Your task to perform on an android device: move a message to another label in the gmail app Image 0: 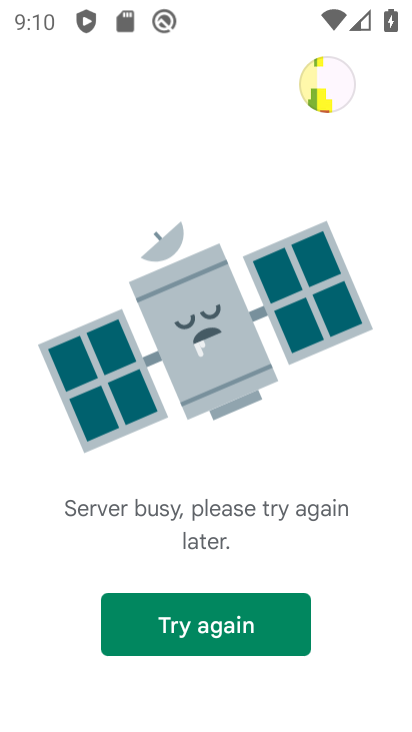
Step 0: press home button
Your task to perform on an android device: move a message to another label in the gmail app Image 1: 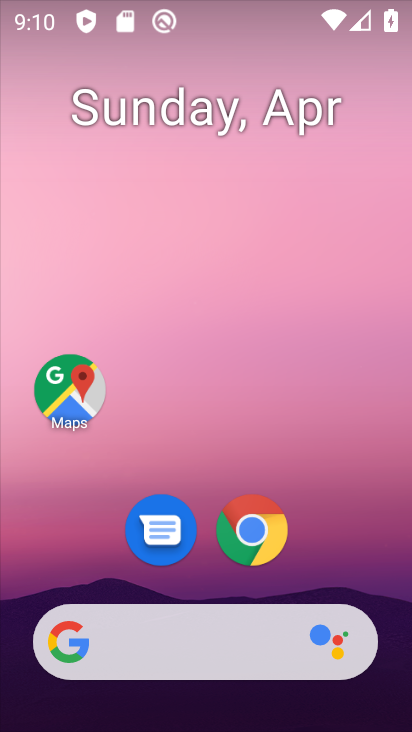
Step 1: drag from (381, 599) to (405, 441)
Your task to perform on an android device: move a message to another label in the gmail app Image 2: 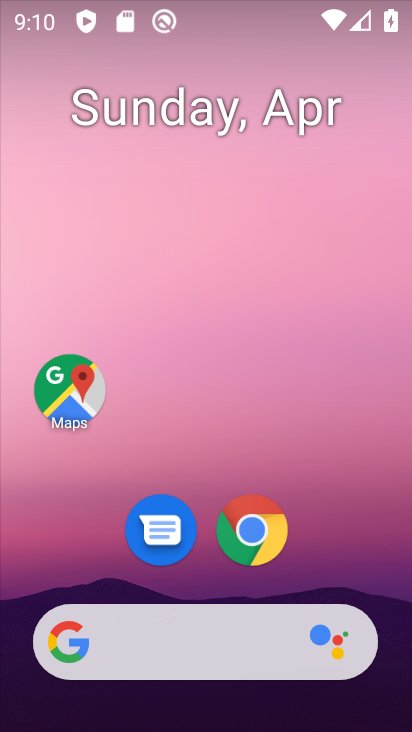
Step 2: drag from (387, 579) to (357, 10)
Your task to perform on an android device: move a message to another label in the gmail app Image 3: 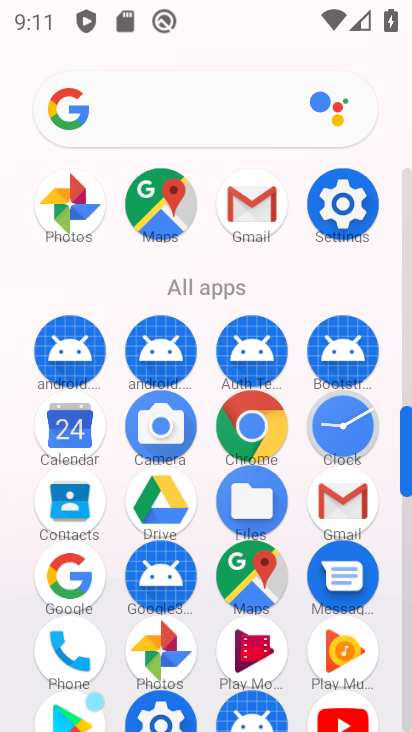
Step 3: click (247, 208)
Your task to perform on an android device: move a message to another label in the gmail app Image 4: 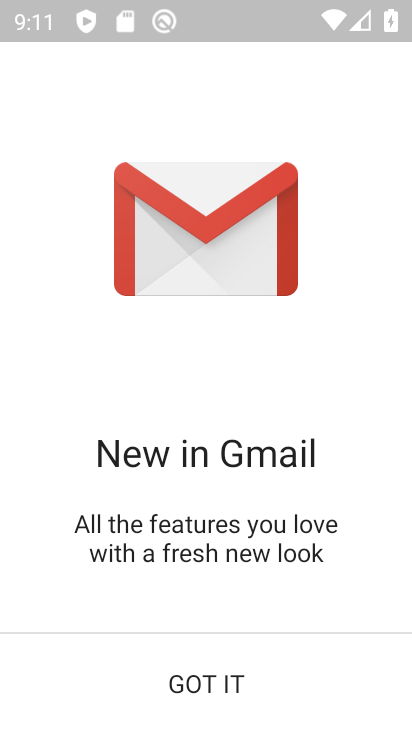
Step 4: click (211, 678)
Your task to perform on an android device: move a message to another label in the gmail app Image 5: 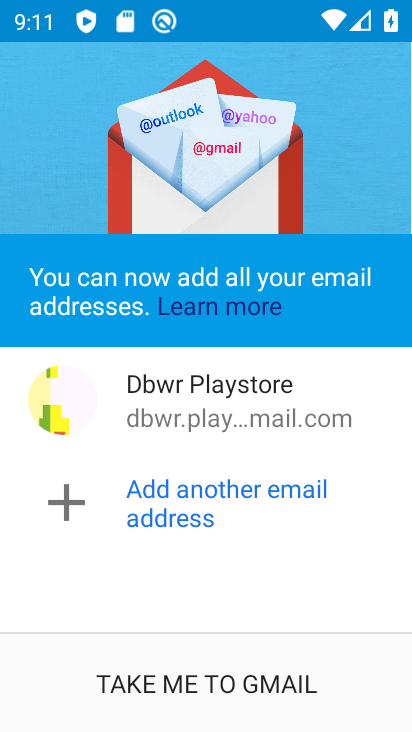
Step 5: click (211, 678)
Your task to perform on an android device: move a message to another label in the gmail app Image 6: 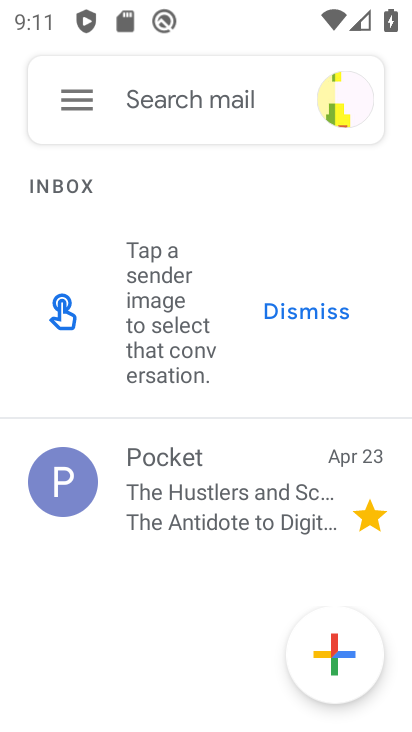
Step 6: click (82, 97)
Your task to perform on an android device: move a message to another label in the gmail app Image 7: 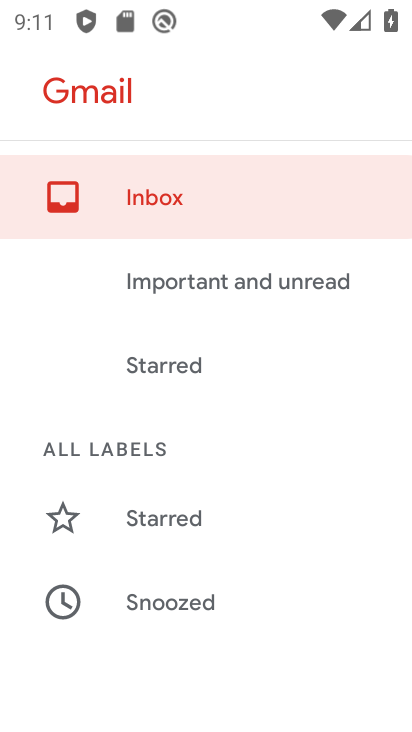
Step 7: click (197, 290)
Your task to perform on an android device: move a message to another label in the gmail app Image 8: 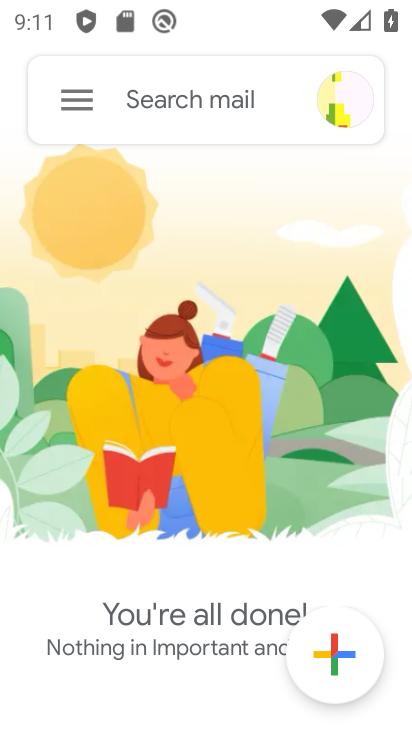
Step 8: click (69, 101)
Your task to perform on an android device: move a message to another label in the gmail app Image 9: 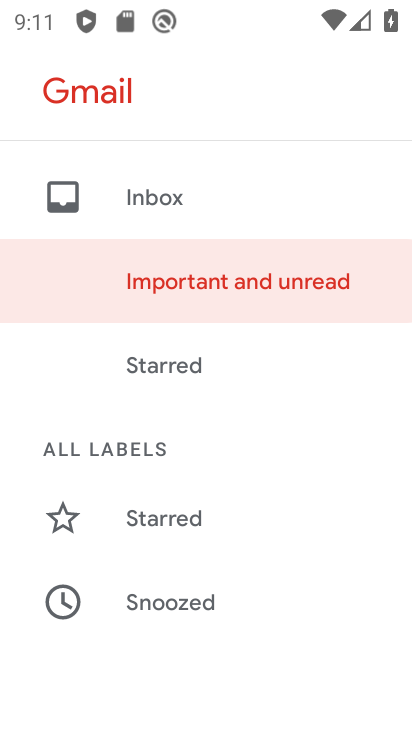
Step 9: drag from (144, 560) to (138, 87)
Your task to perform on an android device: move a message to another label in the gmail app Image 10: 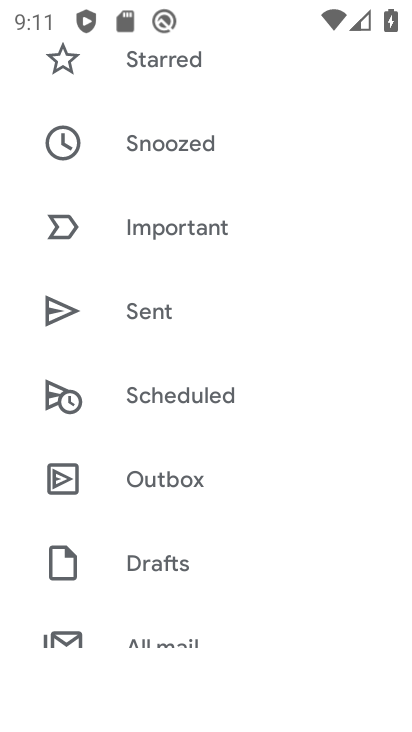
Step 10: drag from (152, 498) to (137, 123)
Your task to perform on an android device: move a message to another label in the gmail app Image 11: 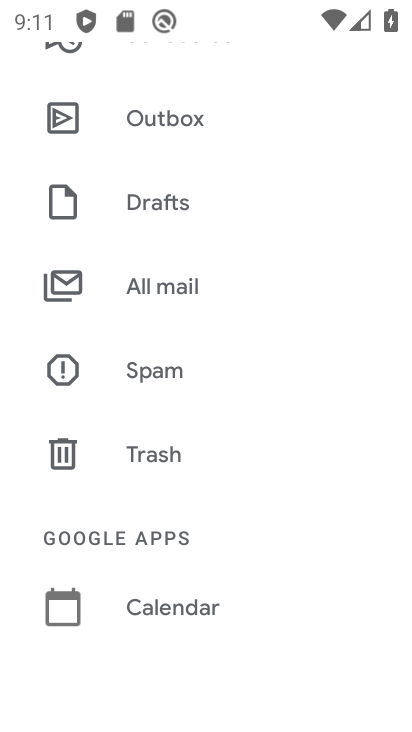
Step 11: click (182, 300)
Your task to perform on an android device: move a message to another label in the gmail app Image 12: 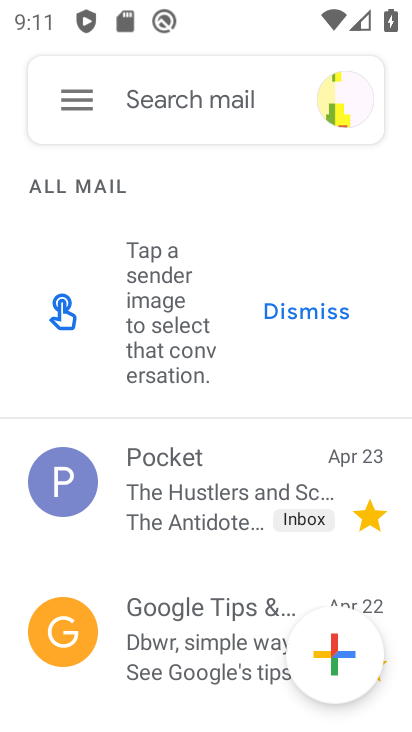
Step 12: drag from (214, 593) to (187, 321)
Your task to perform on an android device: move a message to another label in the gmail app Image 13: 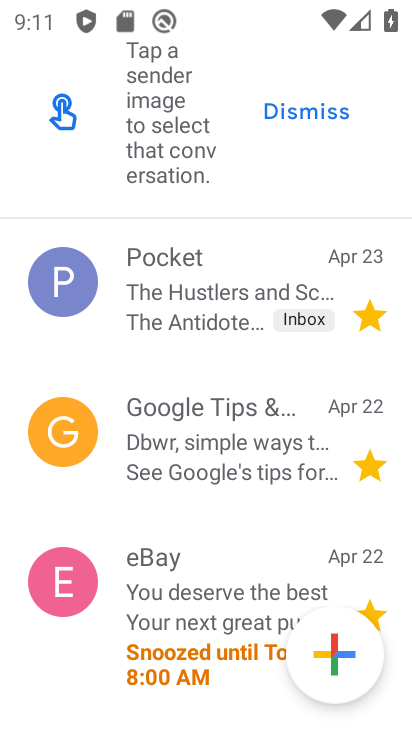
Step 13: click (213, 439)
Your task to perform on an android device: move a message to another label in the gmail app Image 14: 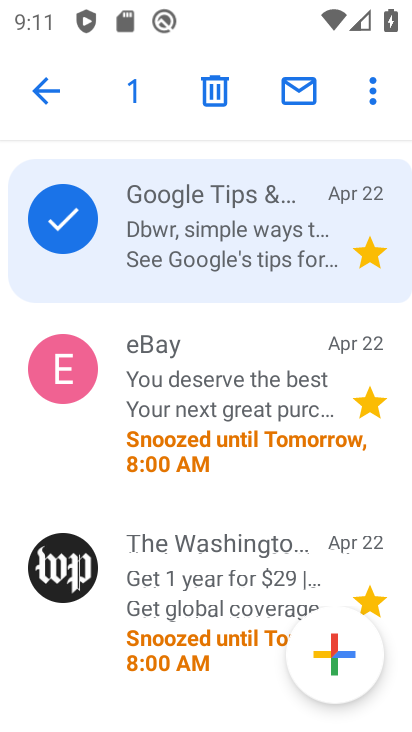
Step 14: click (163, 245)
Your task to perform on an android device: move a message to another label in the gmail app Image 15: 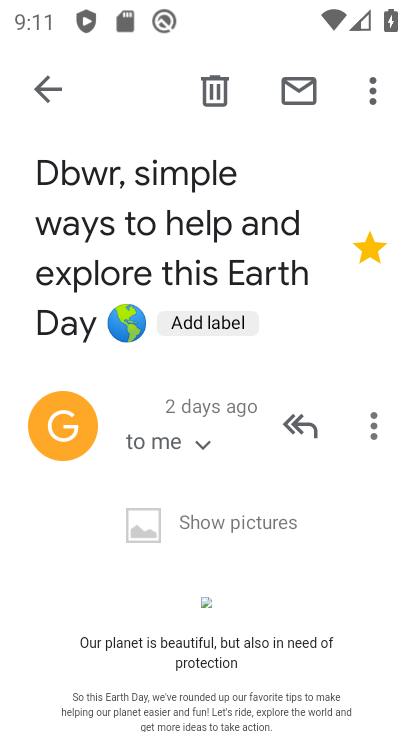
Step 15: click (376, 87)
Your task to perform on an android device: move a message to another label in the gmail app Image 16: 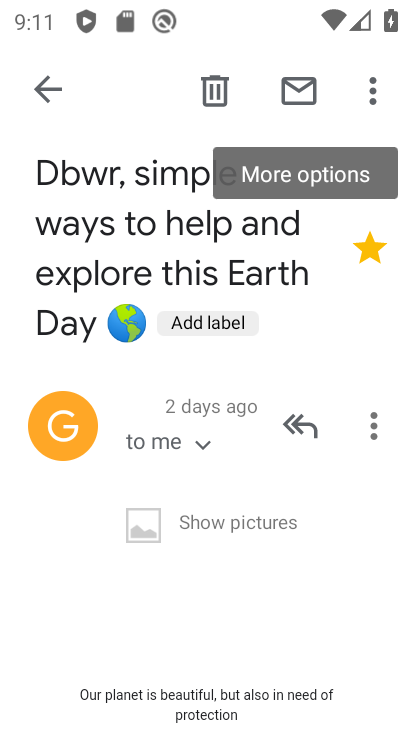
Step 16: click (376, 87)
Your task to perform on an android device: move a message to another label in the gmail app Image 17: 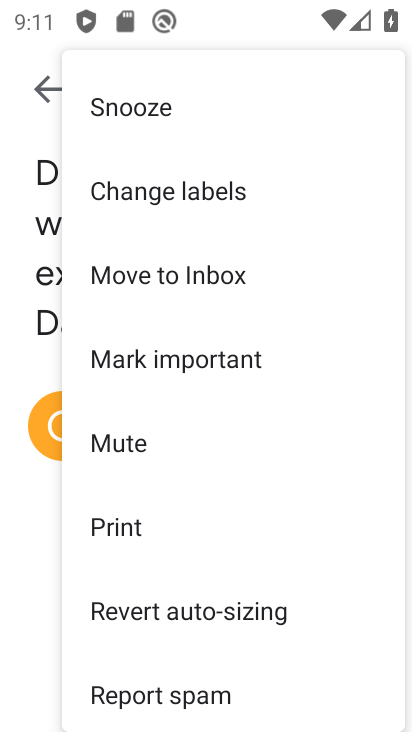
Step 17: click (127, 275)
Your task to perform on an android device: move a message to another label in the gmail app Image 18: 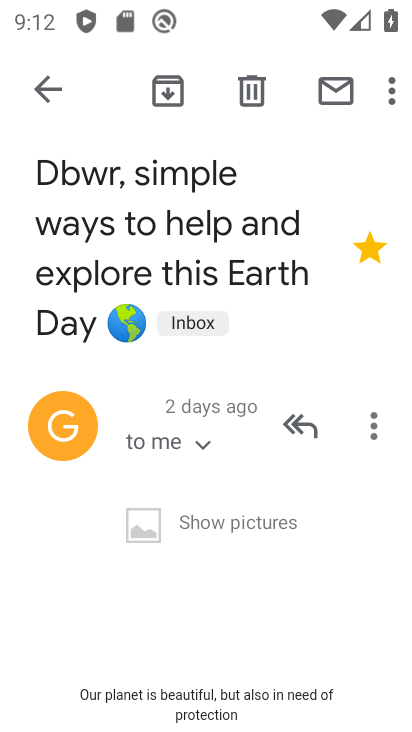
Step 18: task complete